Your task to perform on an android device: Open Maps and search for coffee Image 0: 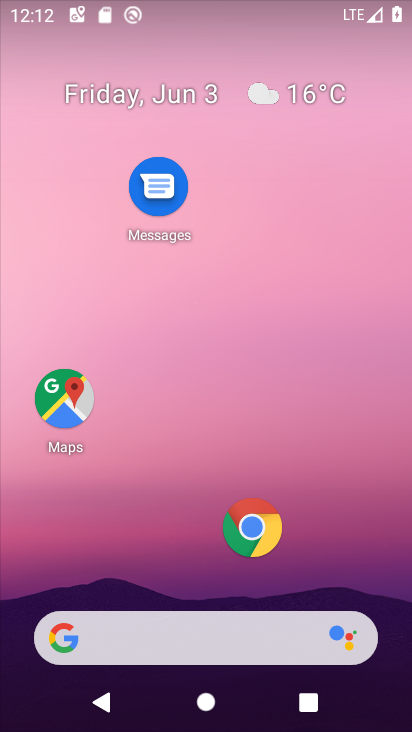
Step 0: click (63, 392)
Your task to perform on an android device: Open Maps and search for coffee Image 1: 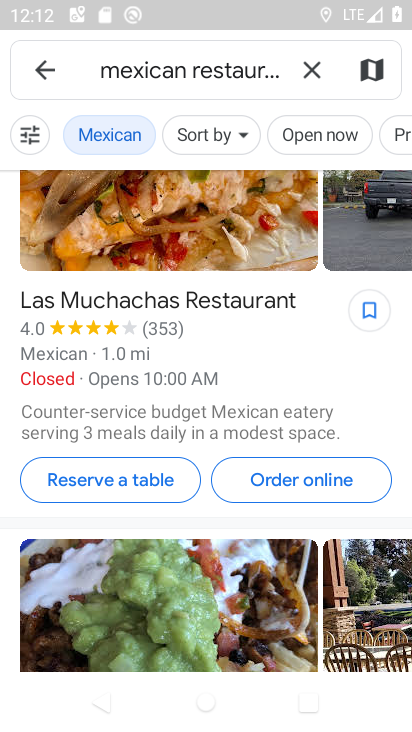
Step 1: click (316, 67)
Your task to perform on an android device: Open Maps and search for coffee Image 2: 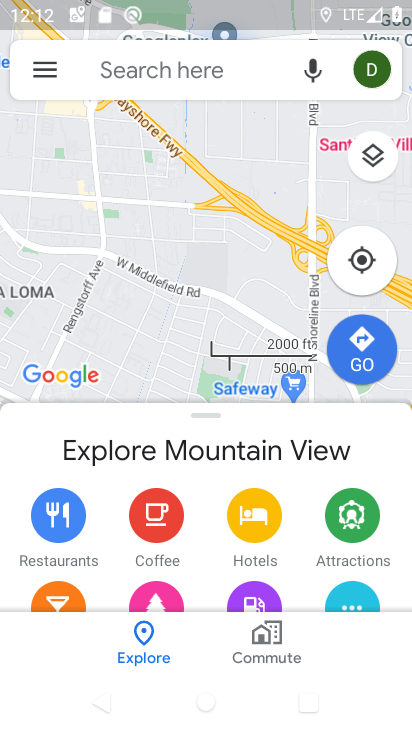
Step 2: click (132, 63)
Your task to perform on an android device: Open Maps and search for coffee Image 3: 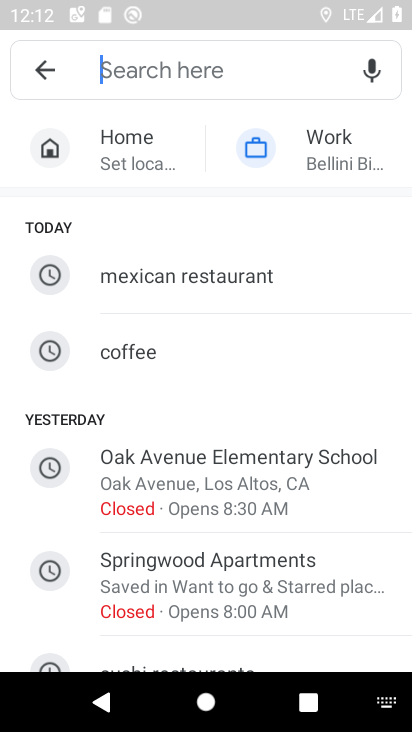
Step 3: click (162, 348)
Your task to perform on an android device: Open Maps and search for coffee Image 4: 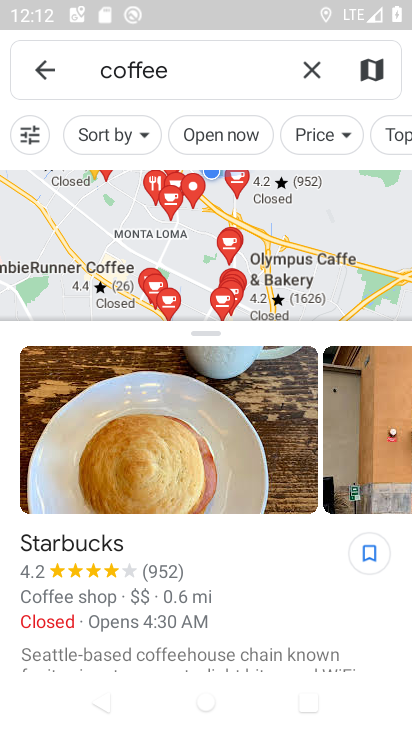
Step 4: task complete